Your task to perform on an android device: open wifi settings Image 0: 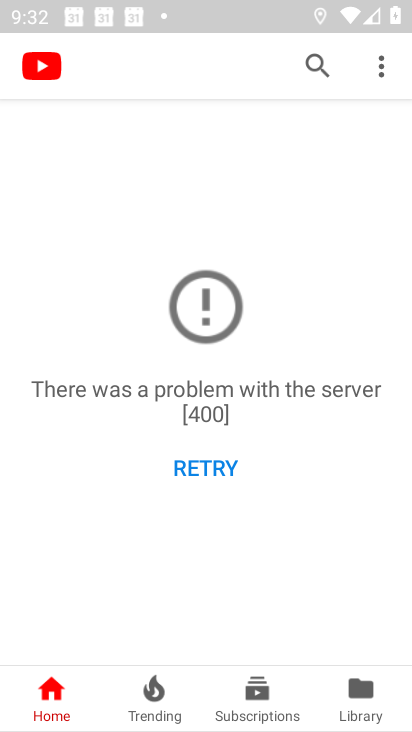
Step 0: press back button
Your task to perform on an android device: open wifi settings Image 1: 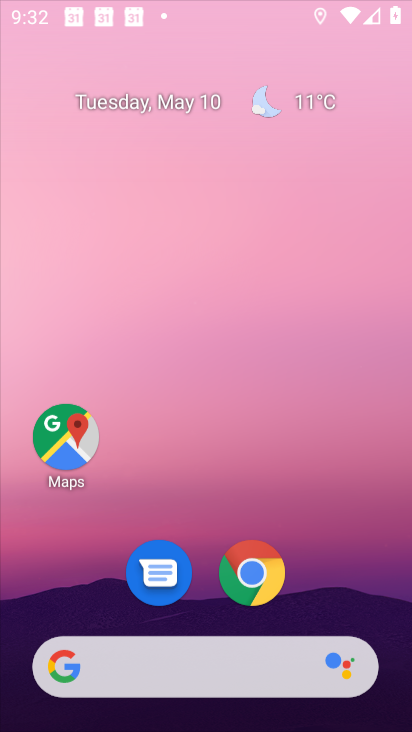
Step 1: press back button
Your task to perform on an android device: open wifi settings Image 2: 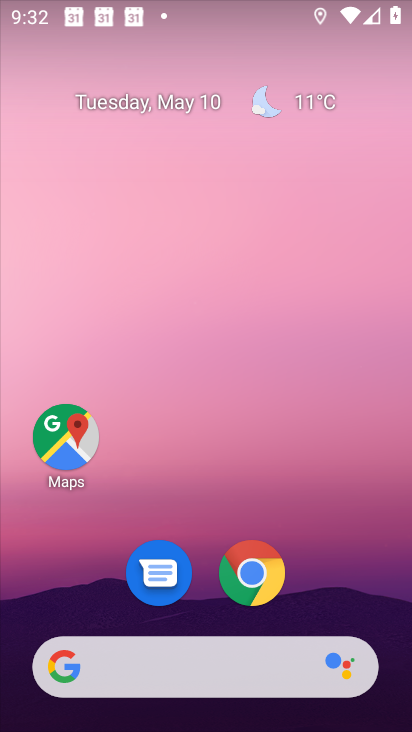
Step 2: drag from (343, 565) to (316, 81)
Your task to perform on an android device: open wifi settings Image 3: 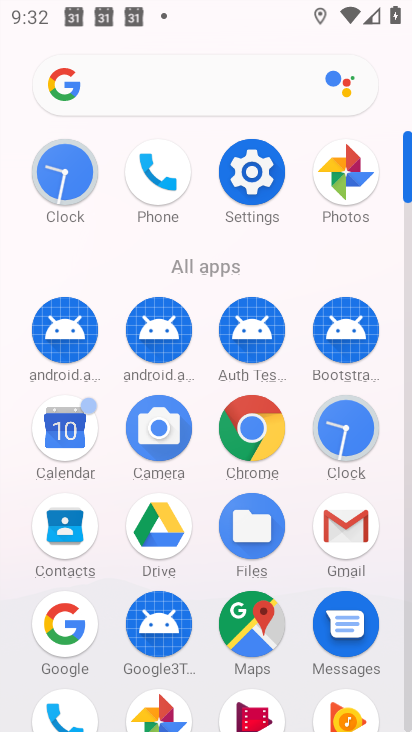
Step 3: click (267, 194)
Your task to perform on an android device: open wifi settings Image 4: 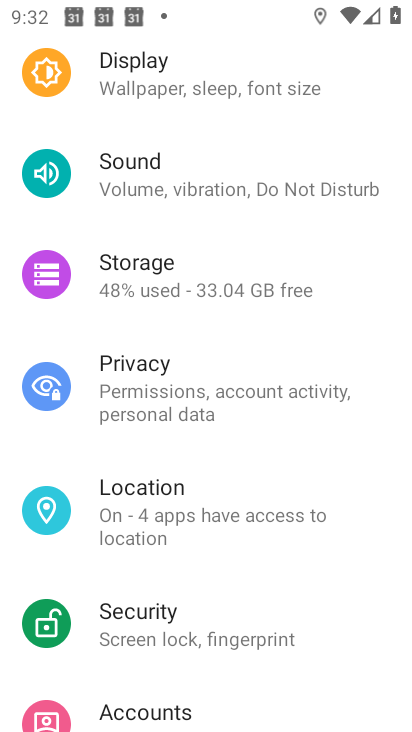
Step 4: drag from (252, 128) to (252, 488)
Your task to perform on an android device: open wifi settings Image 5: 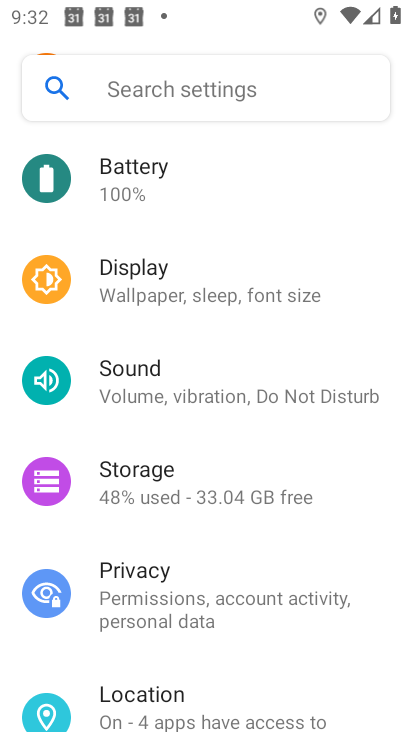
Step 5: drag from (166, 171) to (168, 556)
Your task to perform on an android device: open wifi settings Image 6: 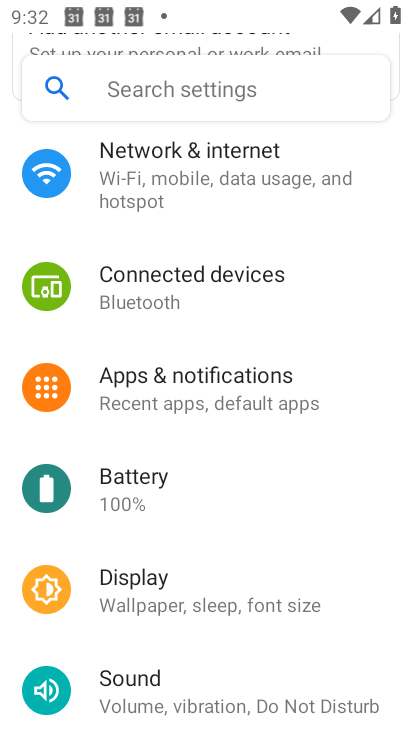
Step 6: drag from (172, 223) to (161, 459)
Your task to perform on an android device: open wifi settings Image 7: 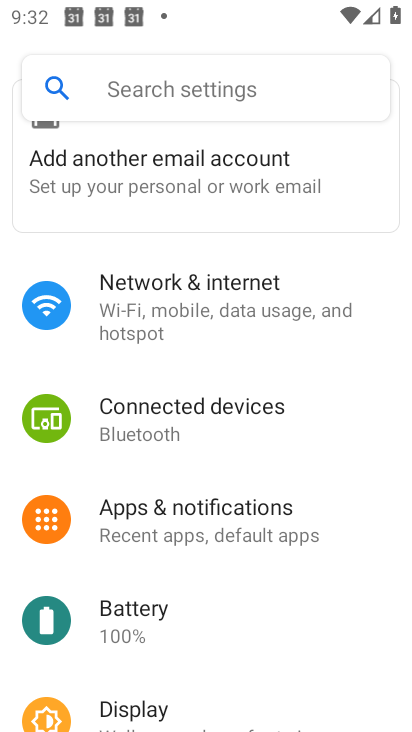
Step 7: click (146, 338)
Your task to perform on an android device: open wifi settings Image 8: 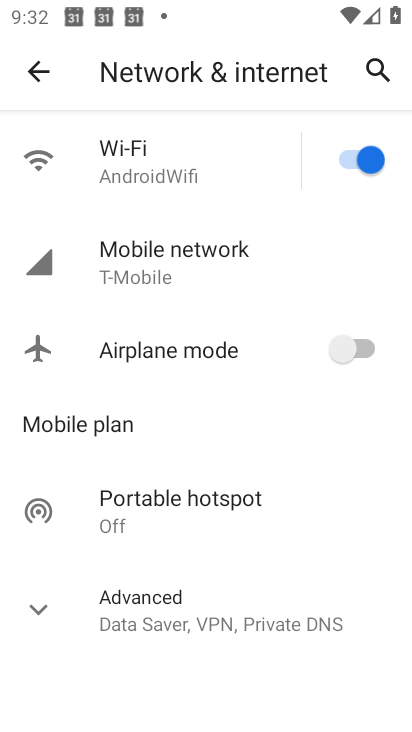
Step 8: click (147, 170)
Your task to perform on an android device: open wifi settings Image 9: 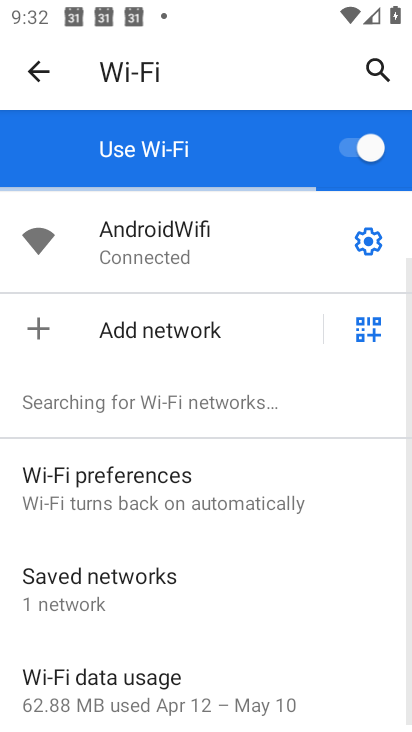
Step 9: task complete